Your task to perform on an android device: Check my email Image 0: 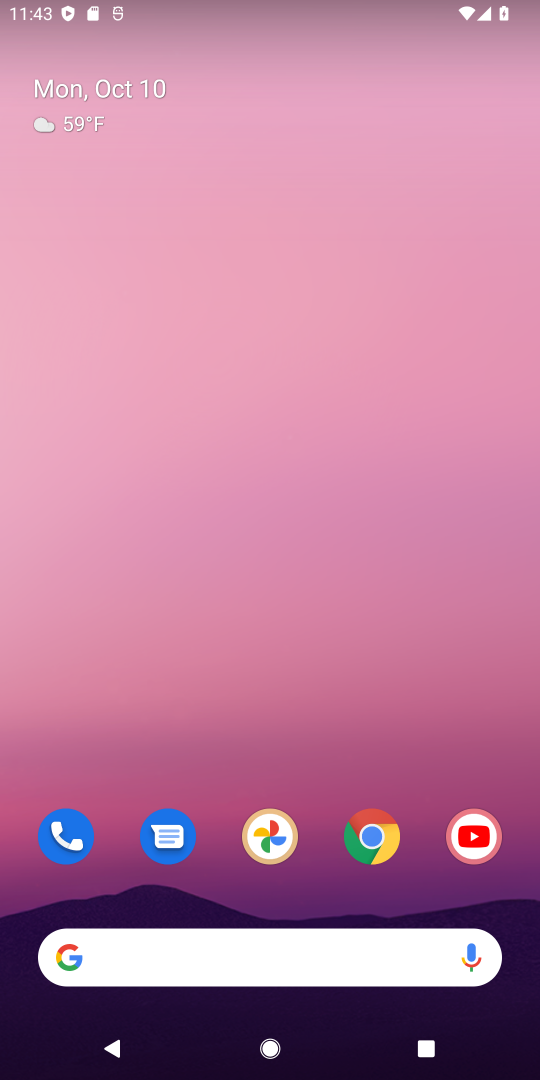
Step 0: drag from (420, 763) to (310, 158)
Your task to perform on an android device: Check my email Image 1: 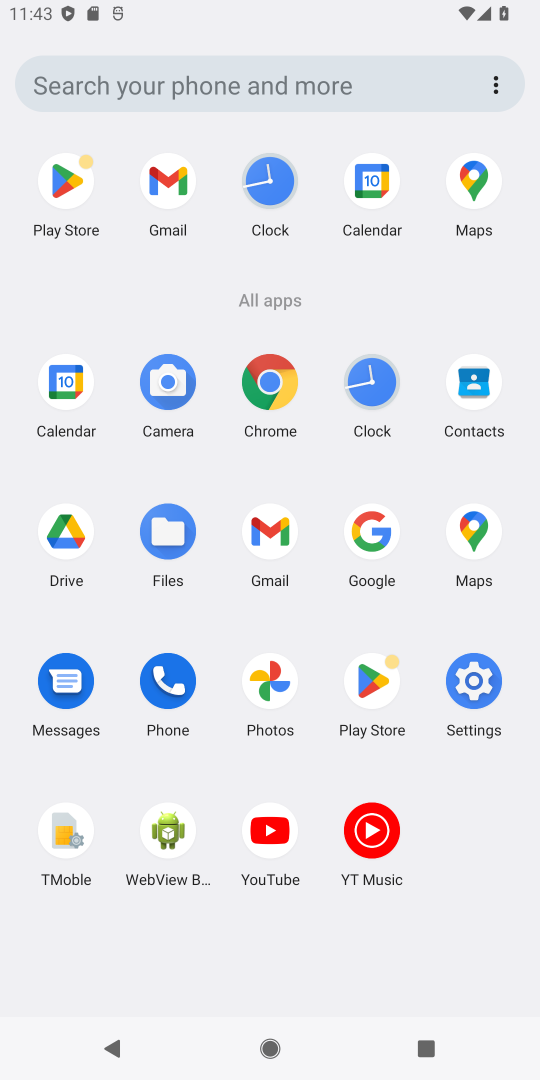
Step 1: click (264, 535)
Your task to perform on an android device: Check my email Image 2: 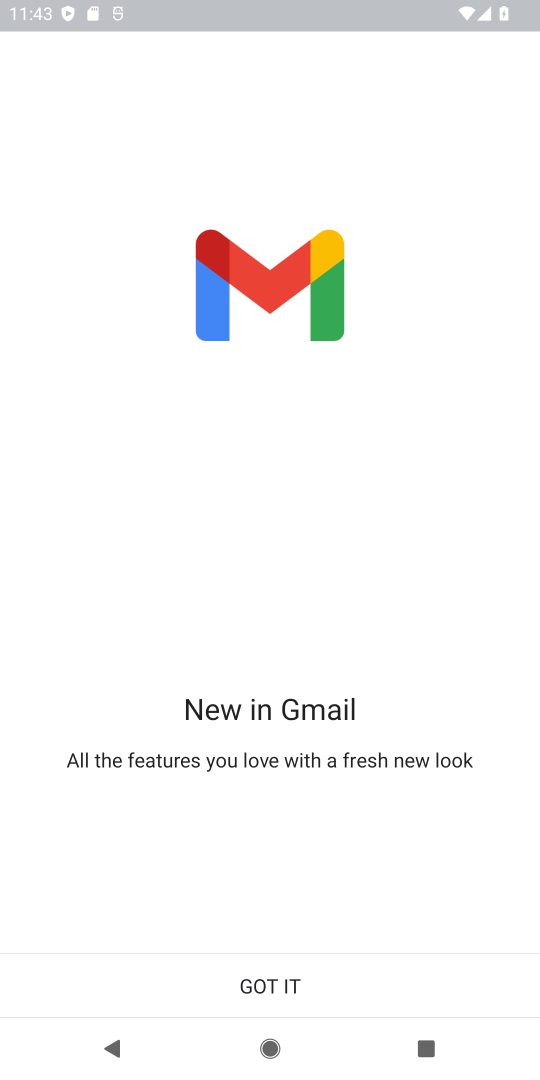
Step 2: click (289, 990)
Your task to perform on an android device: Check my email Image 3: 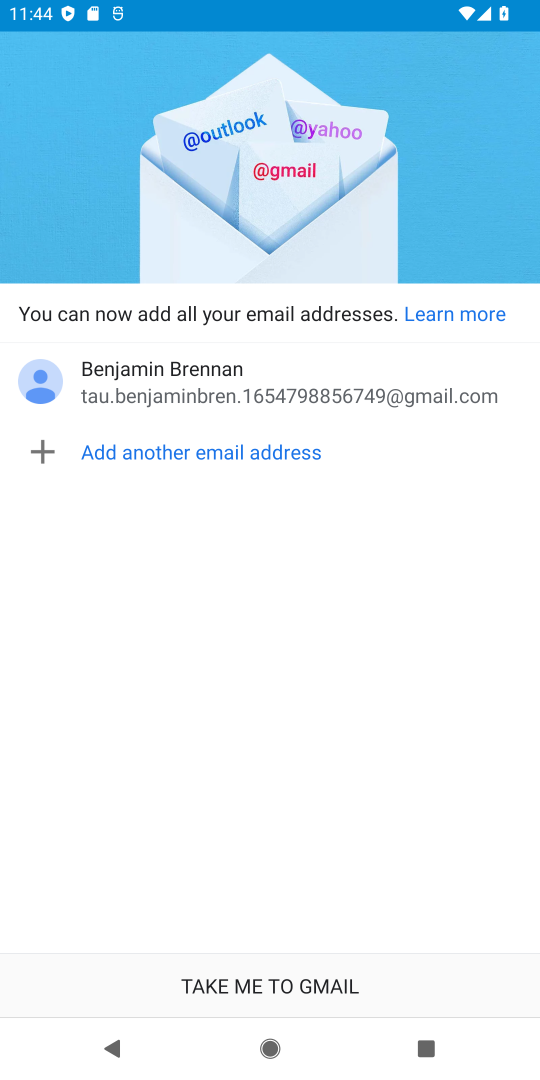
Step 3: click (343, 973)
Your task to perform on an android device: Check my email Image 4: 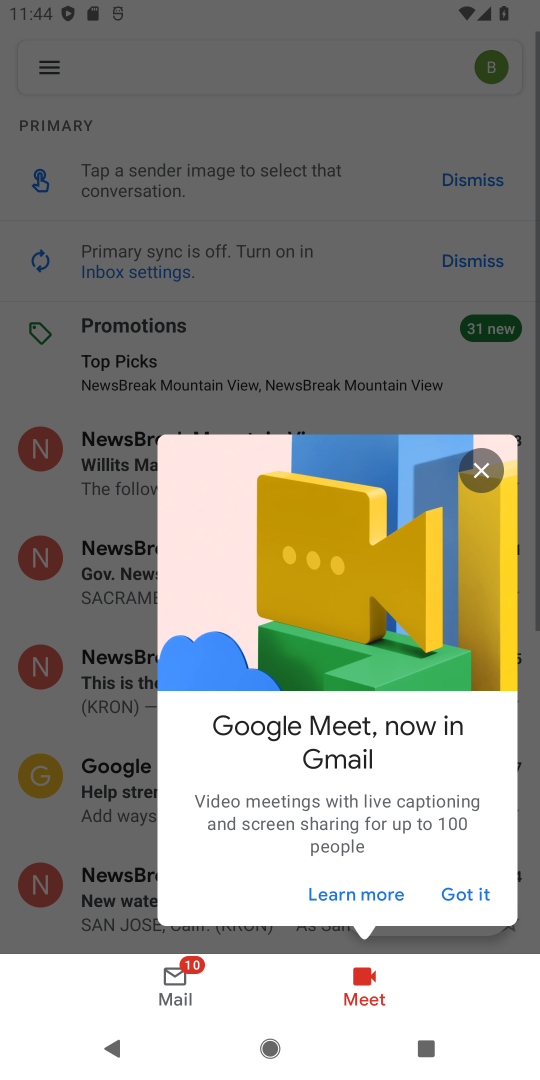
Step 4: click (492, 471)
Your task to perform on an android device: Check my email Image 5: 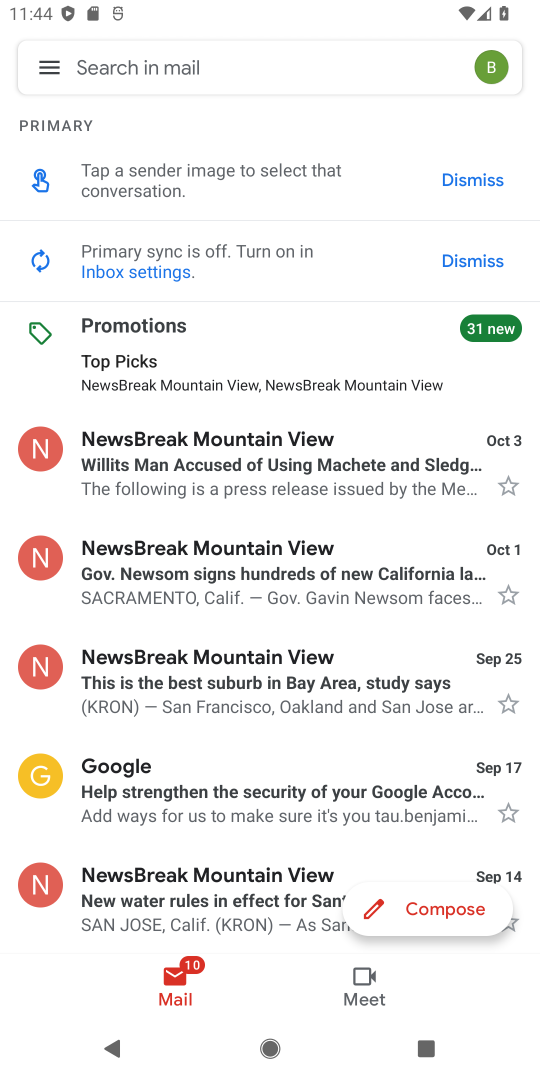
Step 5: task complete